Your task to perform on an android device: open a bookmark in the chrome app Image 0: 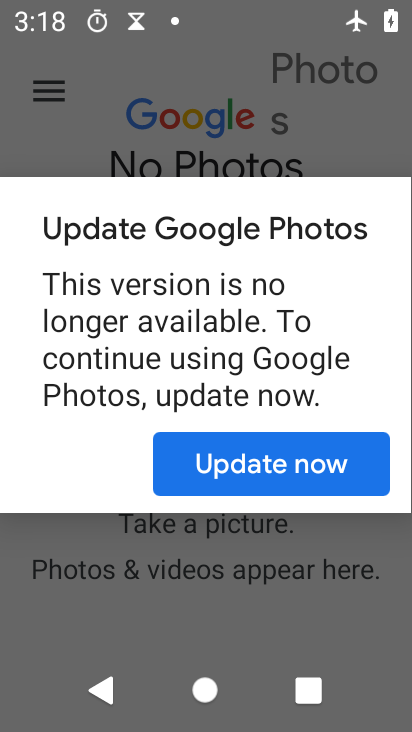
Step 0: press home button
Your task to perform on an android device: open a bookmark in the chrome app Image 1: 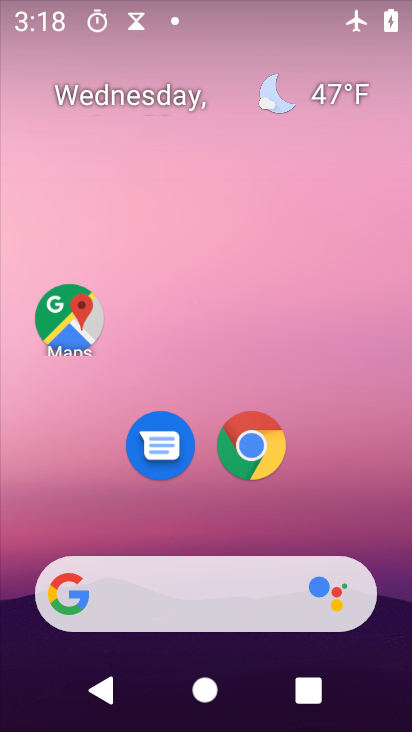
Step 1: click (250, 452)
Your task to perform on an android device: open a bookmark in the chrome app Image 2: 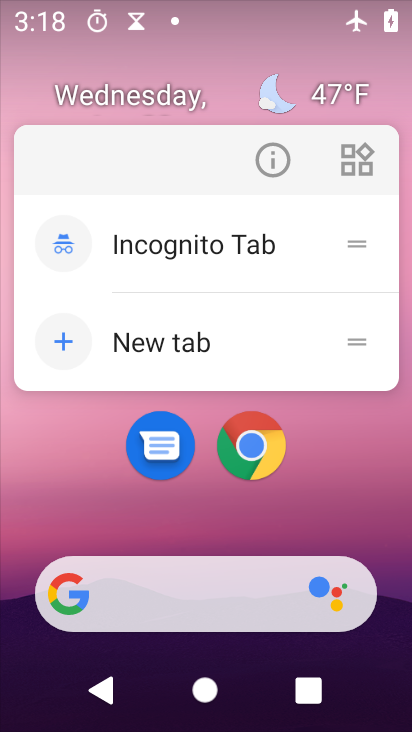
Step 2: click (250, 452)
Your task to perform on an android device: open a bookmark in the chrome app Image 3: 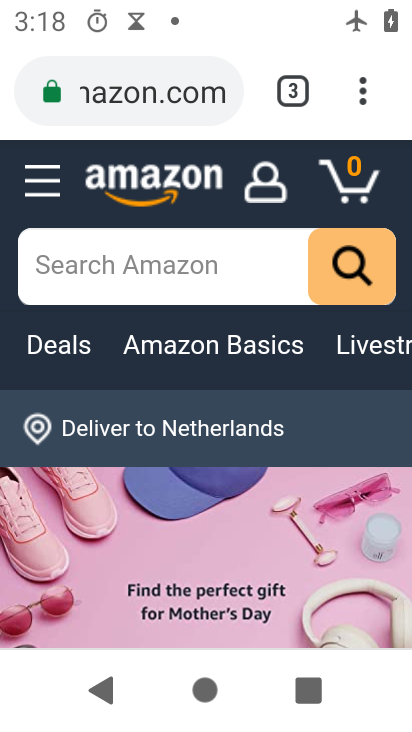
Step 3: click (363, 96)
Your task to perform on an android device: open a bookmark in the chrome app Image 4: 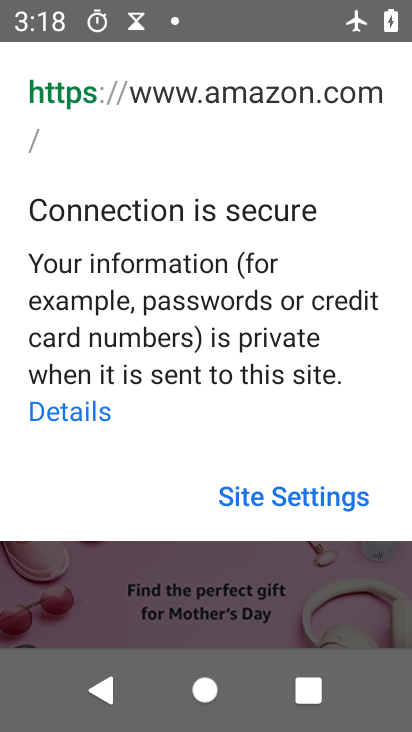
Step 4: click (381, 576)
Your task to perform on an android device: open a bookmark in the chrome app Image 5: 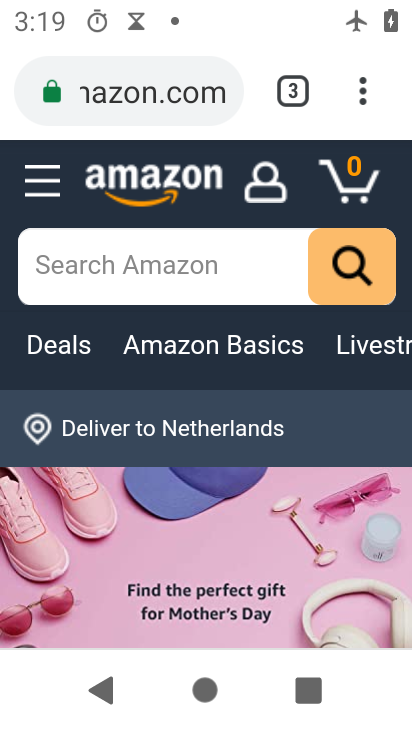
Step 5: click (363, 95)
Your task to perform on an android device: open a bookmark in the chrome app Image 6: 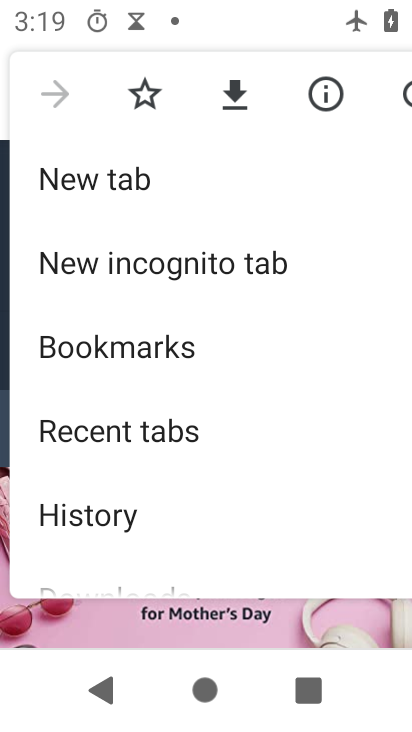
Step 6: click (42, 356)
Your task to perform on an android device: open a bookmark in the chrome app Image 7: 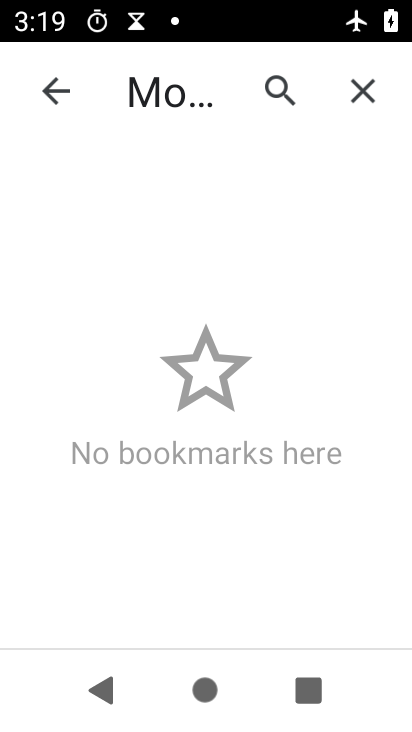
Step 7: task complete